Your task to perform on an android device: uninstall "LinkedIn" Image 0: 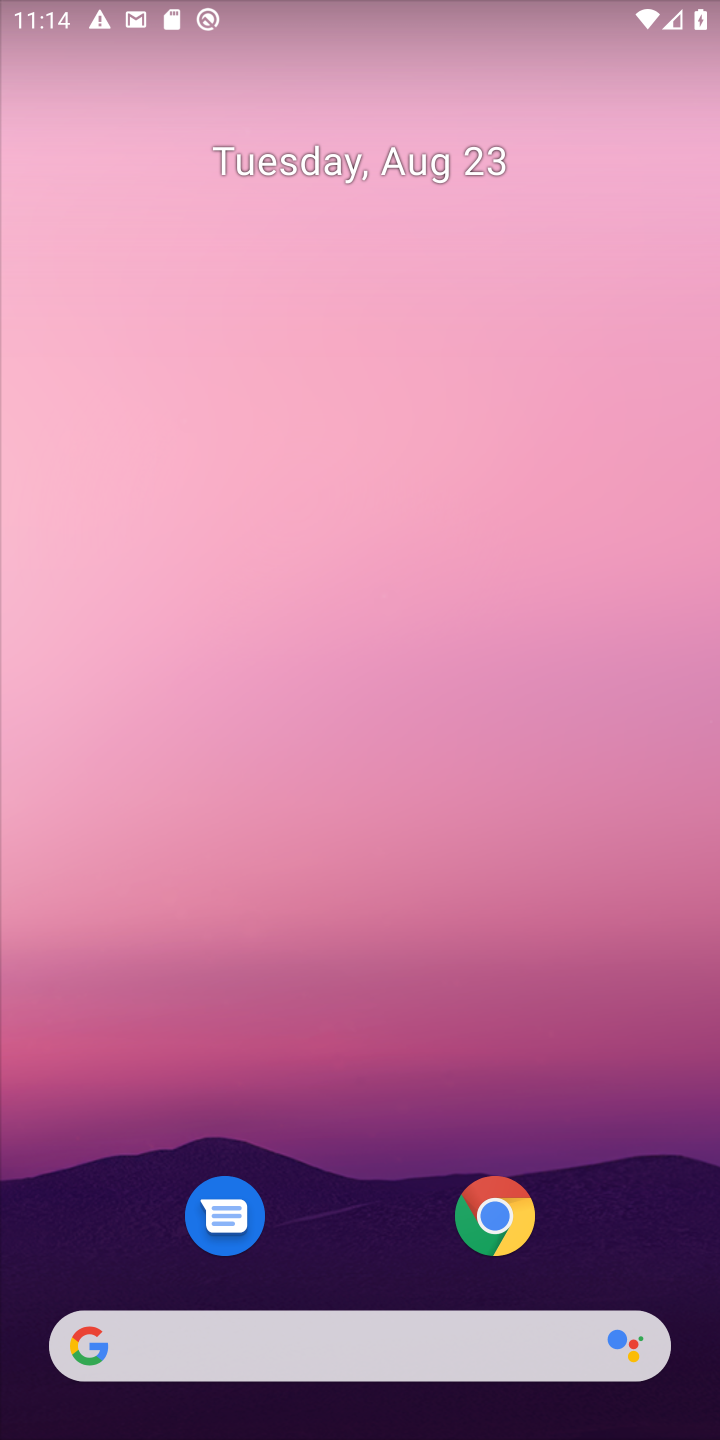
Step 0: drag from (290, 1351) to (423, 399)
Your task to perform on an android device: uninstall "LinkedIn" Image 1: 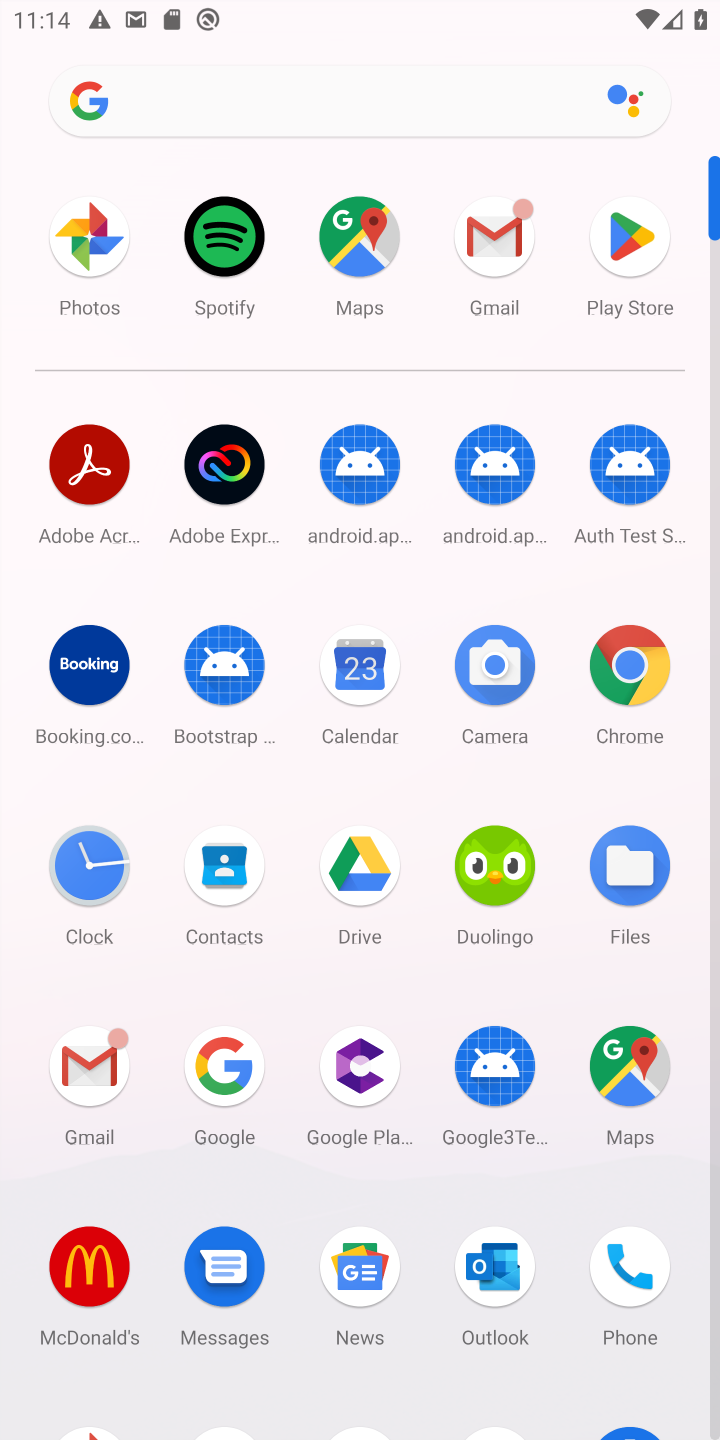
Step 1: click (634, 226)
Your task to perform on an android device: uninstall "LinkedIn" Image 2: 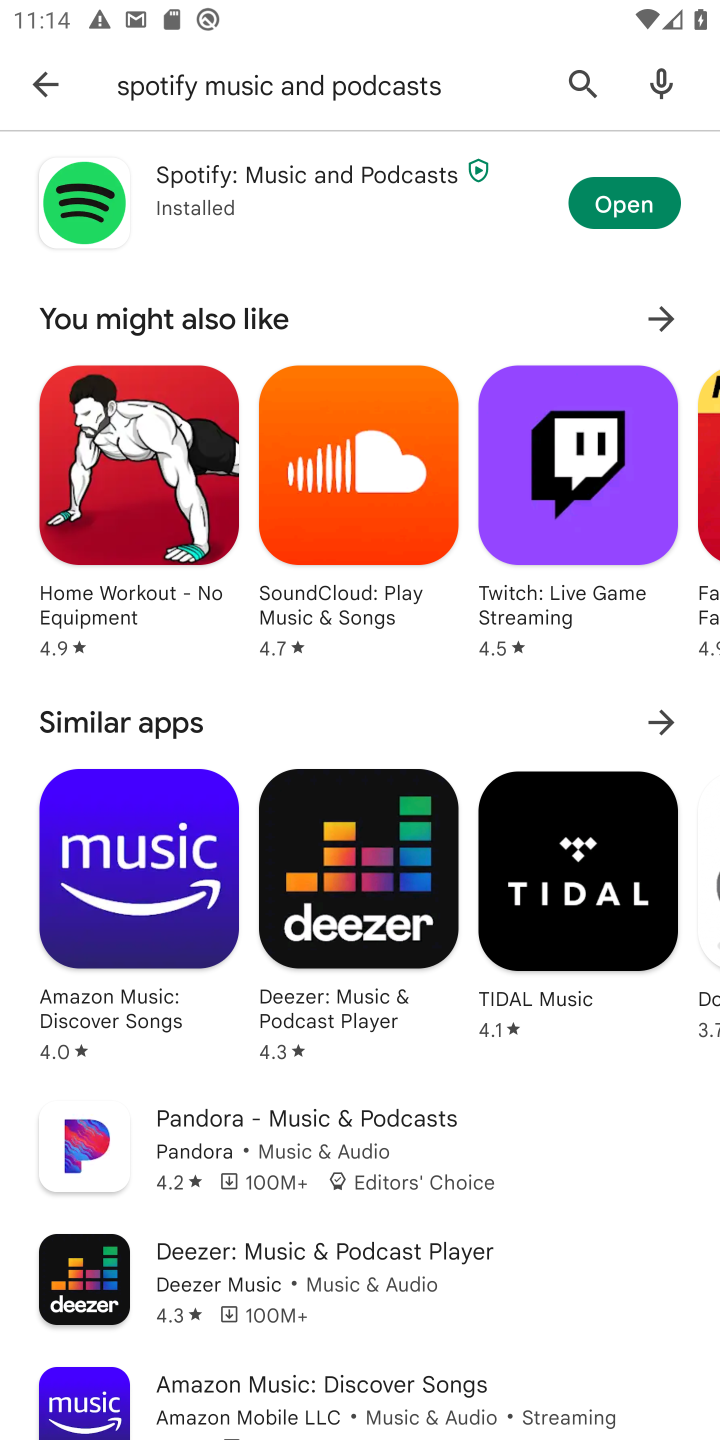
Step 2: press back button
Your task to perform on an android device: uninstall "LinkedIn" Image 3: 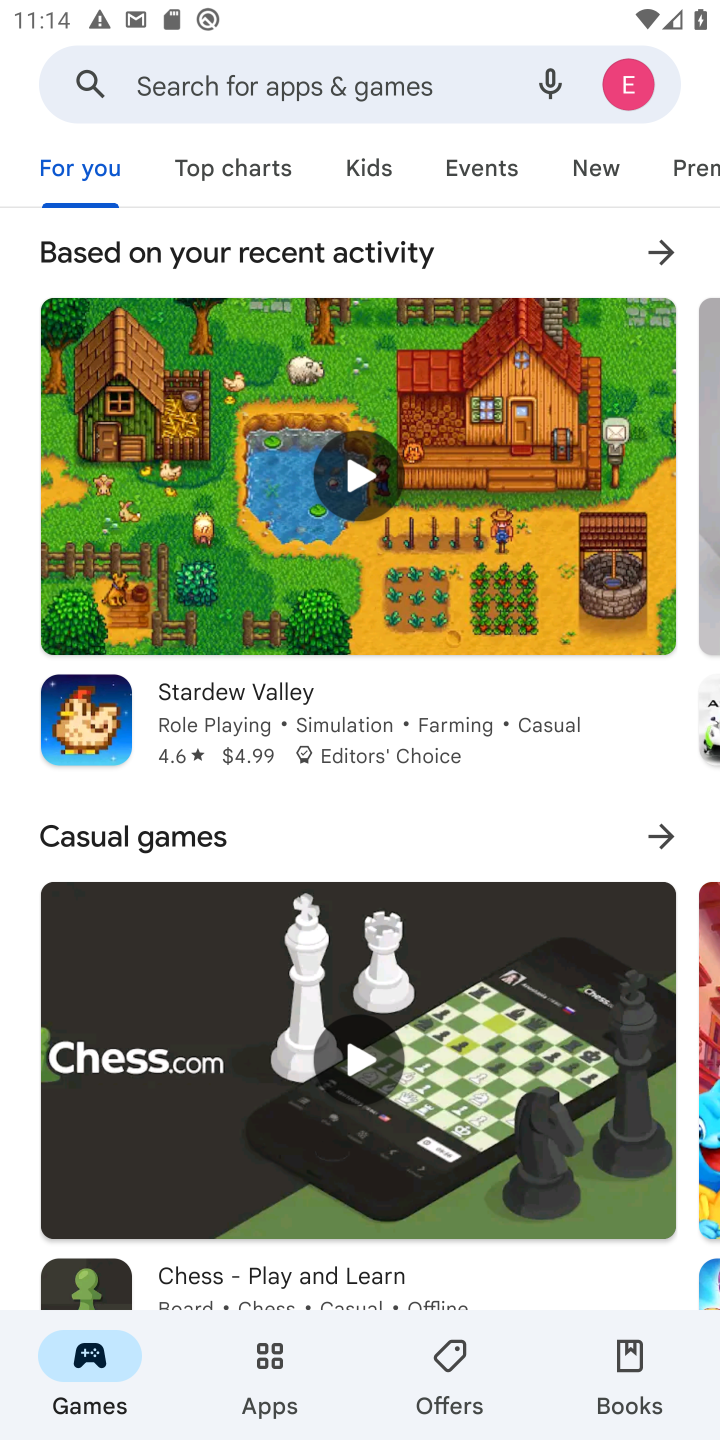
Step 3: click (430, 82)
Your task to perform on an android device: uninstall "LinkedIn" Image 4: 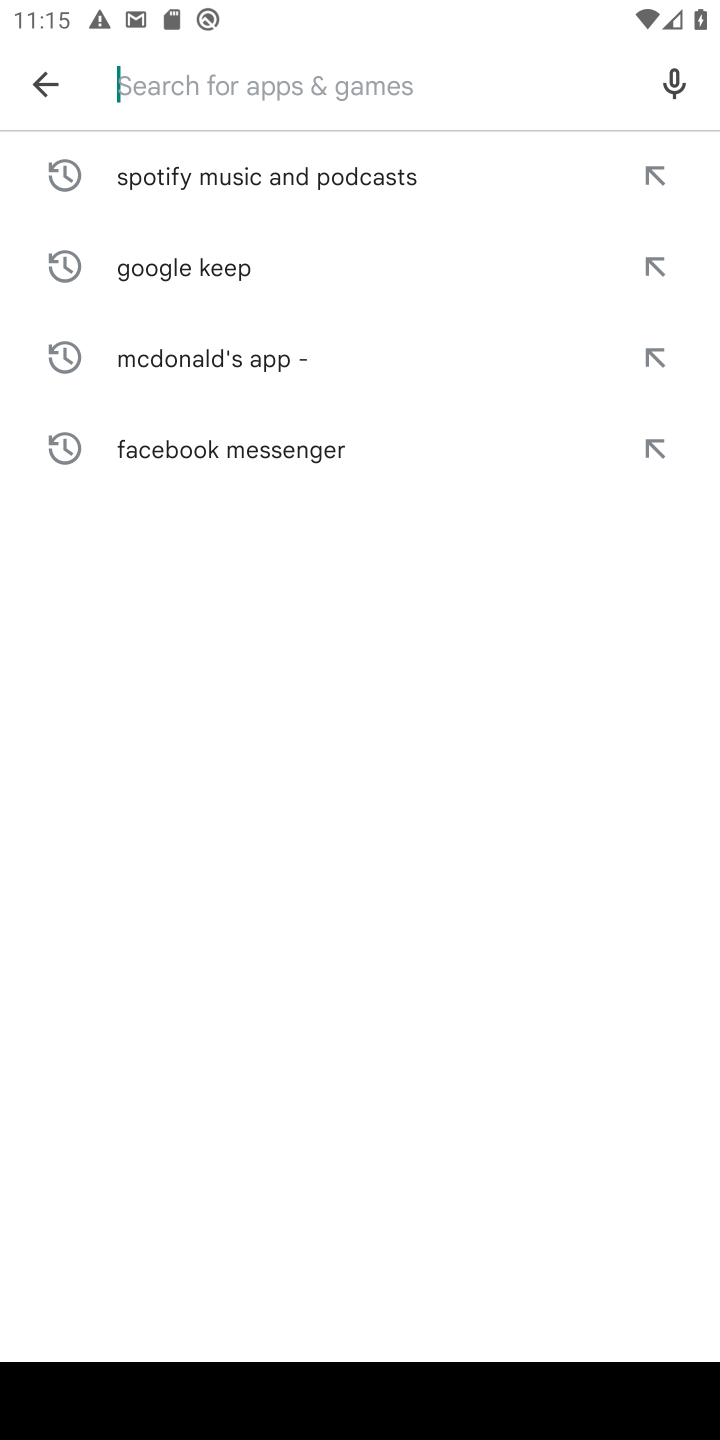
Step 4: type "LinkedIn"
Your task to perform on an android device: uninstall "LinkedIn" Image 5: 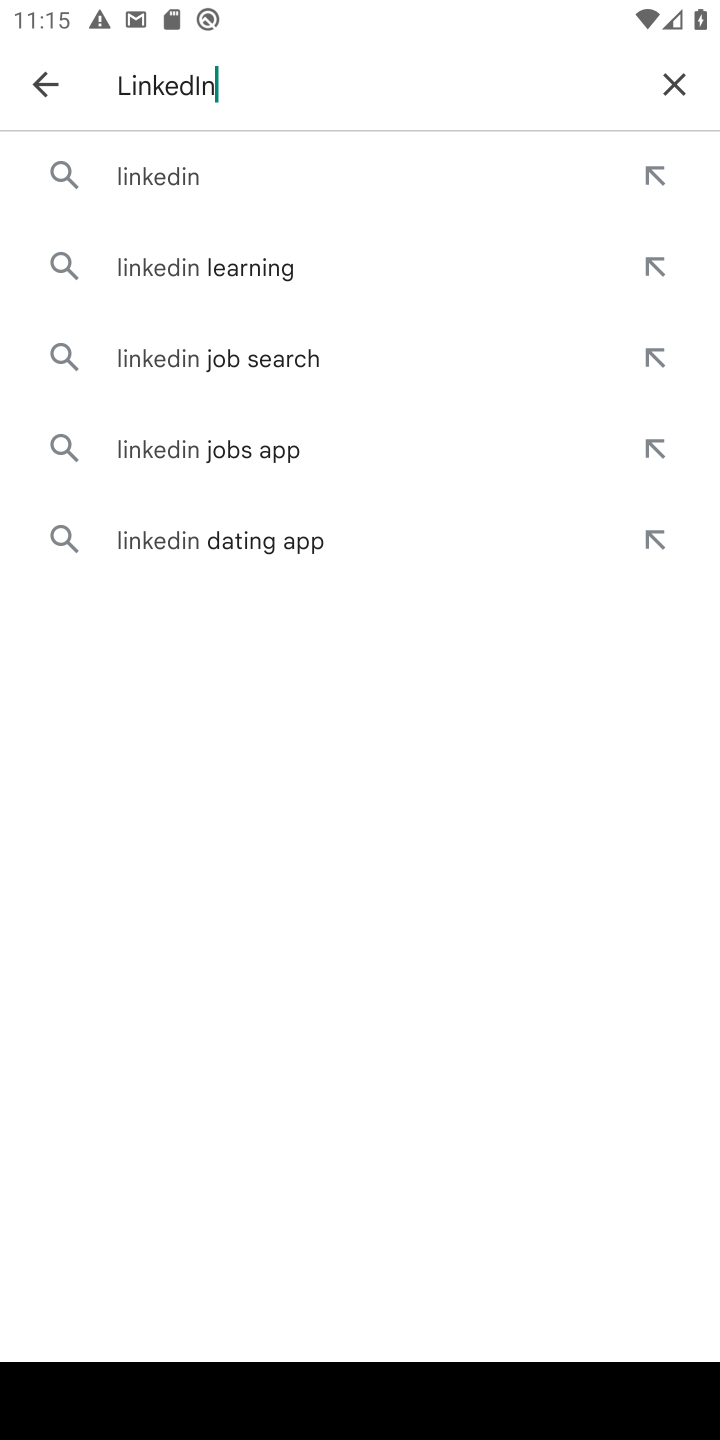
Step 5: click (183, 178)
Your task to perform on an android device: uninstall "LinkedIn" Image 6: 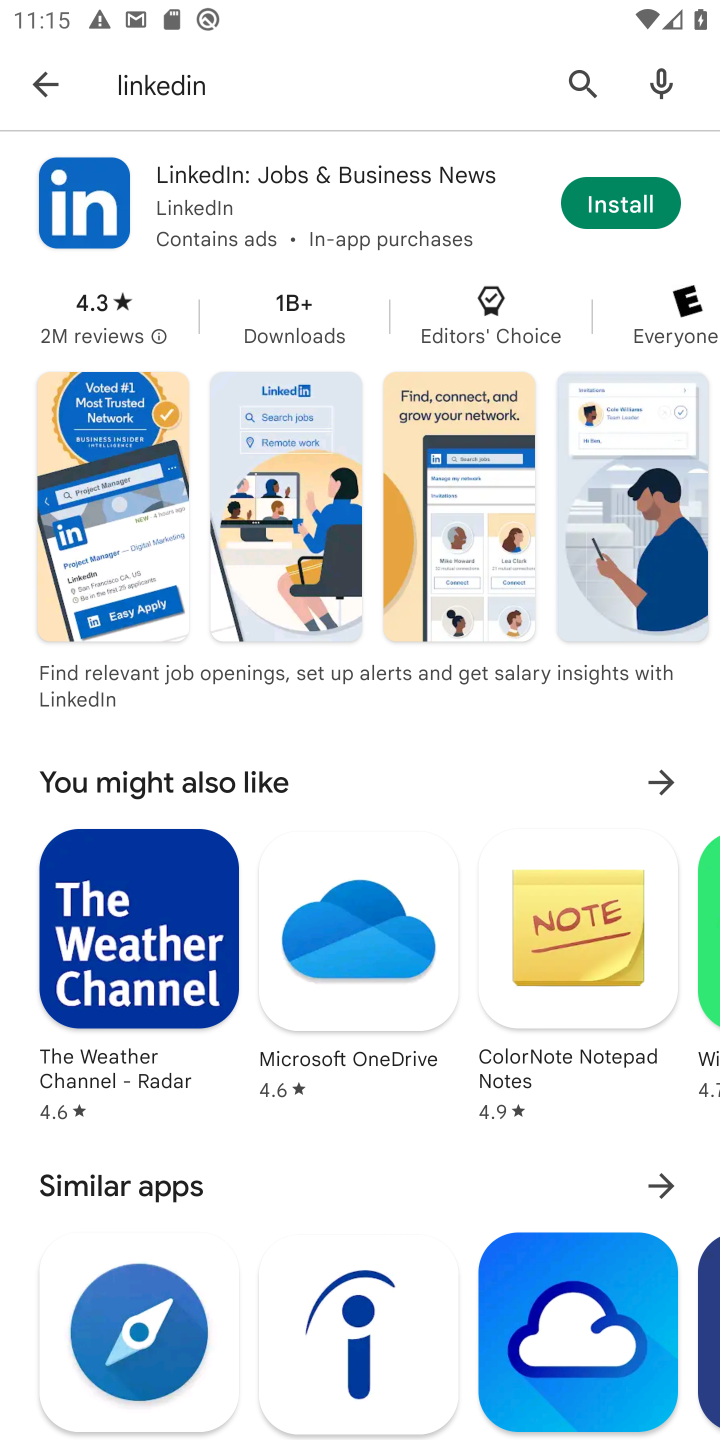
Step 6: task complete